Your task to perform on an android device: Open Maps and search for coffee Image 0: 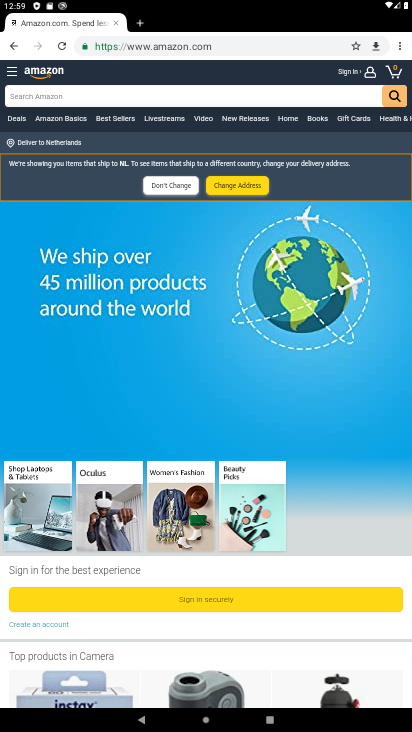
Step 0: press home button
Your task to perform on an android device: Open Maps and search for coffee Image 1: 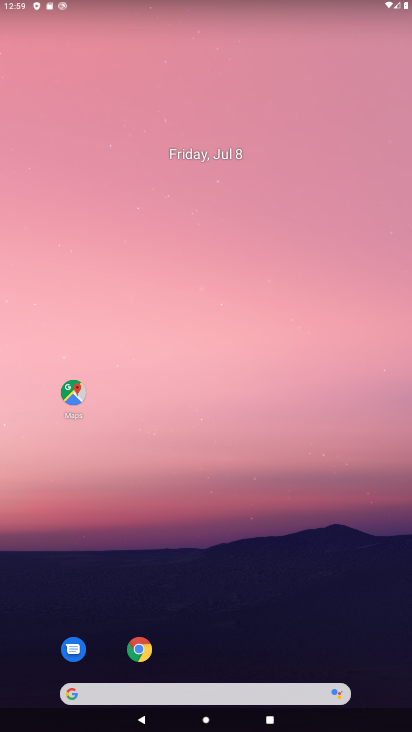
Step 1: click (68, 394)
Your task to perform on an android device: Open Maps and search for coffee Image 2: 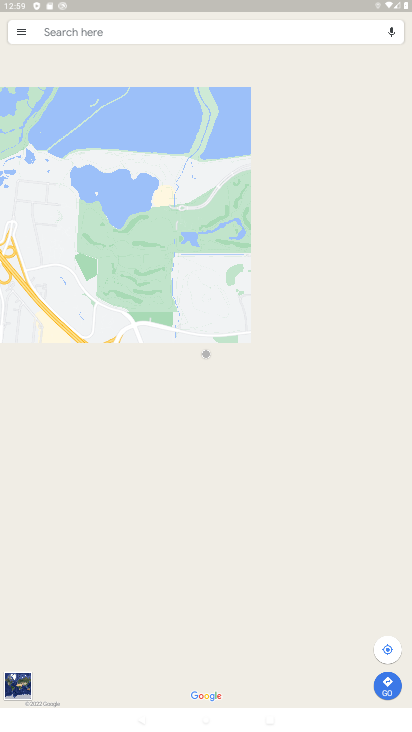
Step 2: click (60, 28)
Your task to perform on an android device: Open Maps and search for coffee Image 3: 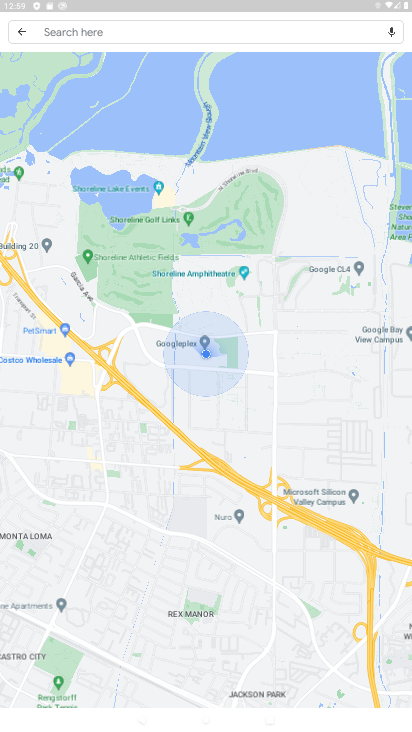
Step 3: click (55, 29)
Your task to perform on an android device: Open Maps and search for coffee Image 4: 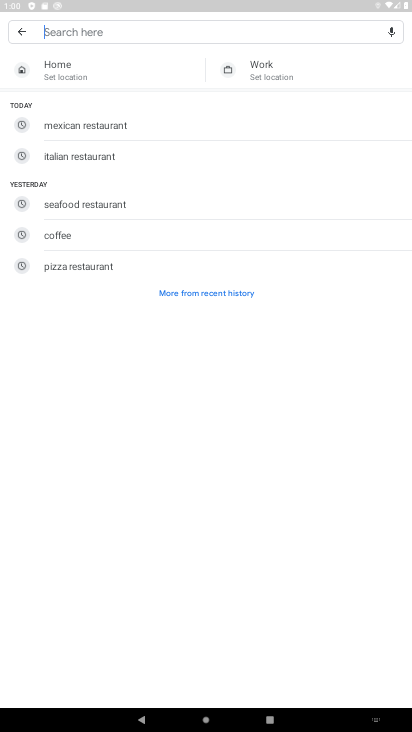
Step 4: type "coffee"
Your task to perform on an android device: Open Maps and search for coffee Image 5: 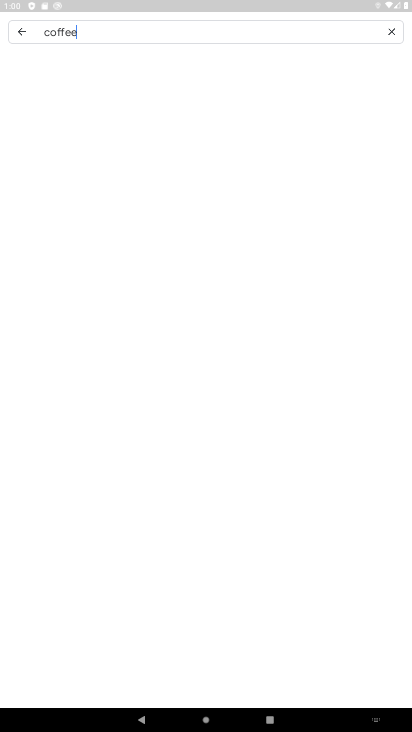
Step 5: type ""
Your task to perform on an android device: Open Maps and search for coffee Image 6: 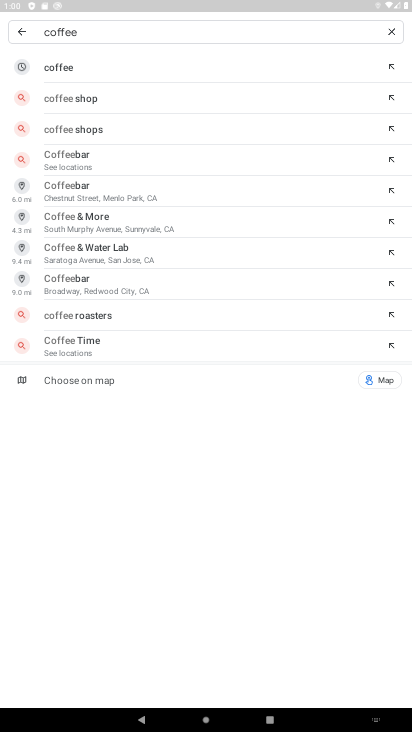
Step 6: click (51, 63)
Your task to perform on an android device: Open Maps and search for coffee Image 7: 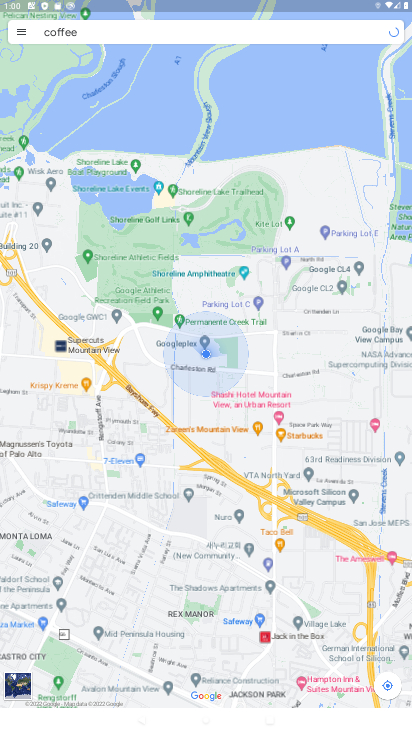
Step 7: task complete